Your task to perform on an android device: What's the weather today? Image 0: 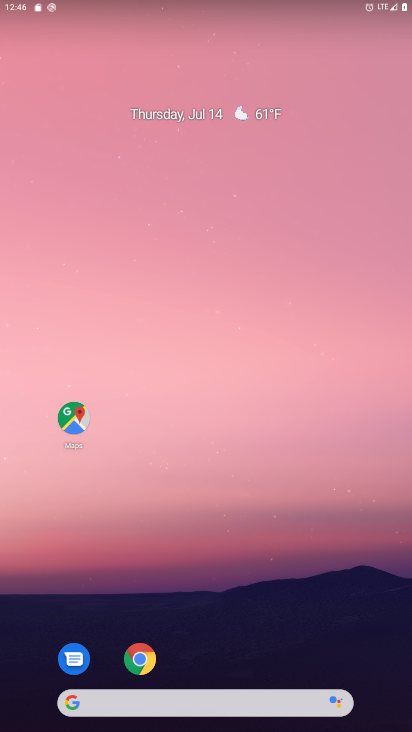
Step 0: press home button
Your task to perform on an android device: What's the weather today? Image 1: 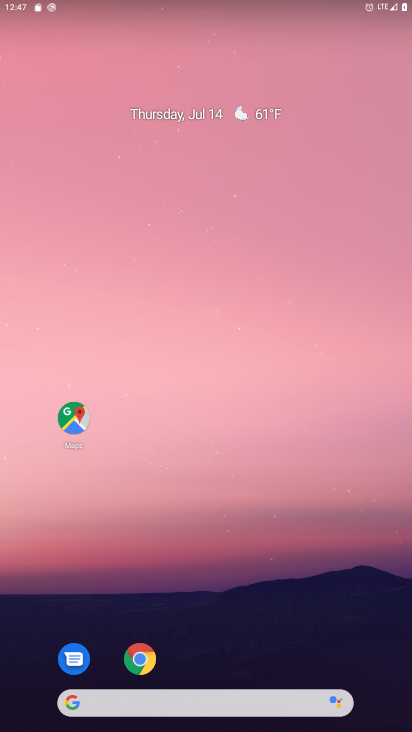
Step 1: click (260, 107)
Your task to perform on an android device: What's the weather today? Image 2: 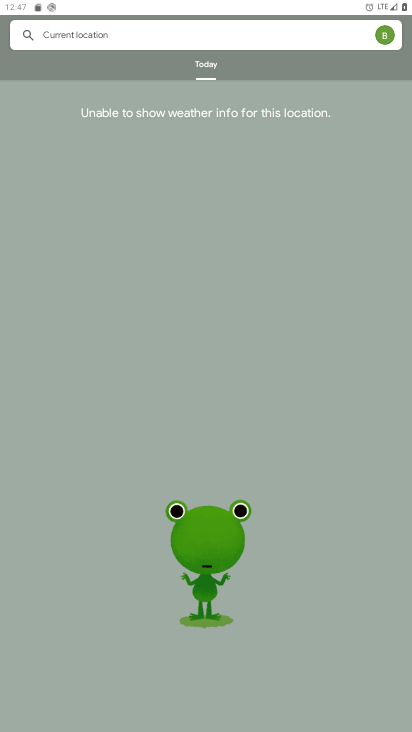
Step 2: click (216, 116)
Your task to perform on an android device: What's the weather today? Image 3: 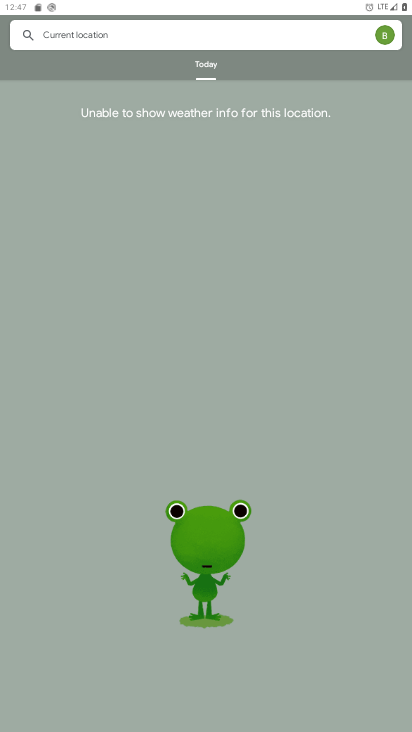
Step 3: click (239, 566)
Your task to perform on an android device: What's the weather today? Image 4: 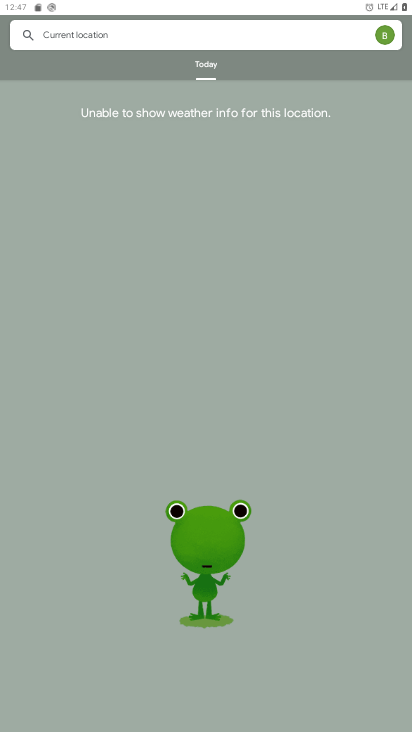
Step 4: click (239, 566)
Your task to perform on an android device: What's the weather today? Image 5: 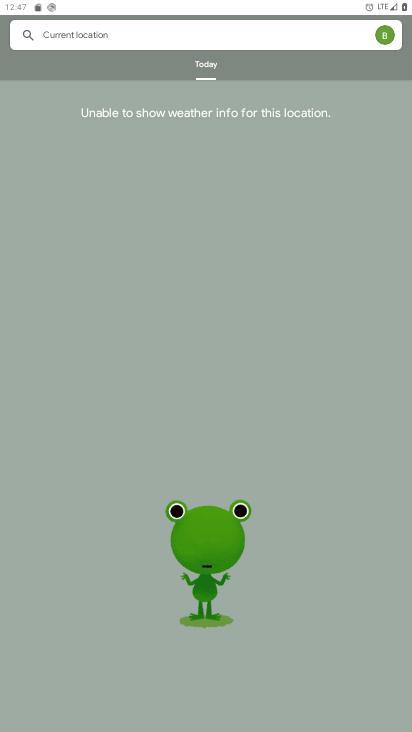
Step 5: click (227, 567)
Your task to perform on an android device: What's the weather today? Image 6: 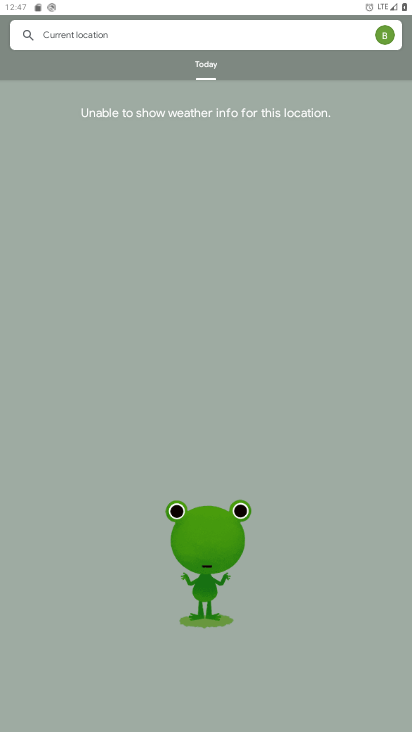
Step 6: click (200, 606)
Your task to perform on an android device: What's the weather today? Image 7: 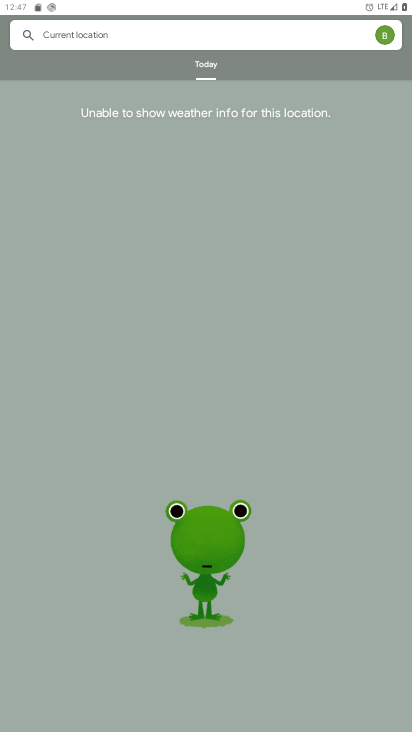
Step 7: drag from (194, 613) to (212, 164)
Your task to perform on an android device: What's the weather today? Image 8: 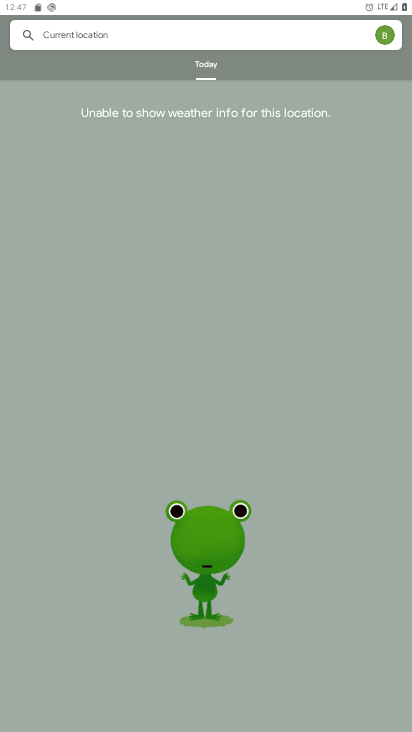
Step 8: click (208, 555)
Your task to perform on an android device: What's the weather today? Image 9: 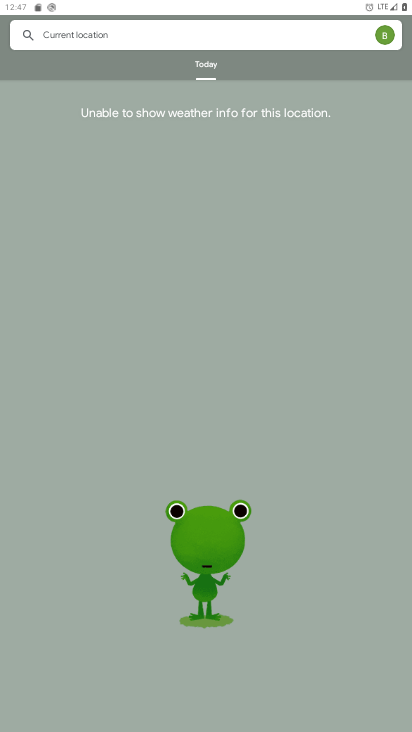
Step 9: click (199, 530)
Your task to perform on an android device: What's the weather today? Image 10: 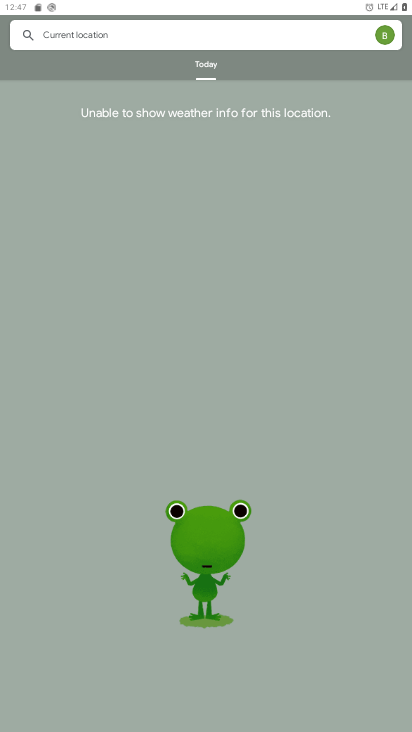
Step 10: click (382, 31)
Your task to perform on an android device: What's the weather today? Image 11: 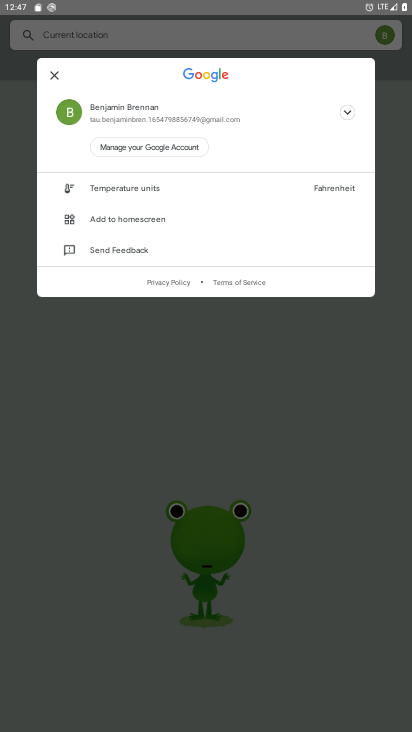
Step 11: click (205, 448)
Your task to perform on an android device: What's the weather today? Image 12: 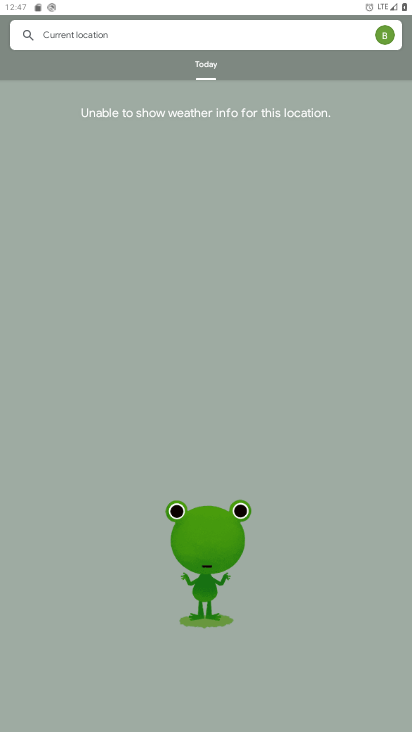
Step 12: task complete